Your task to perform on an android device: open wifi settings Image 0: 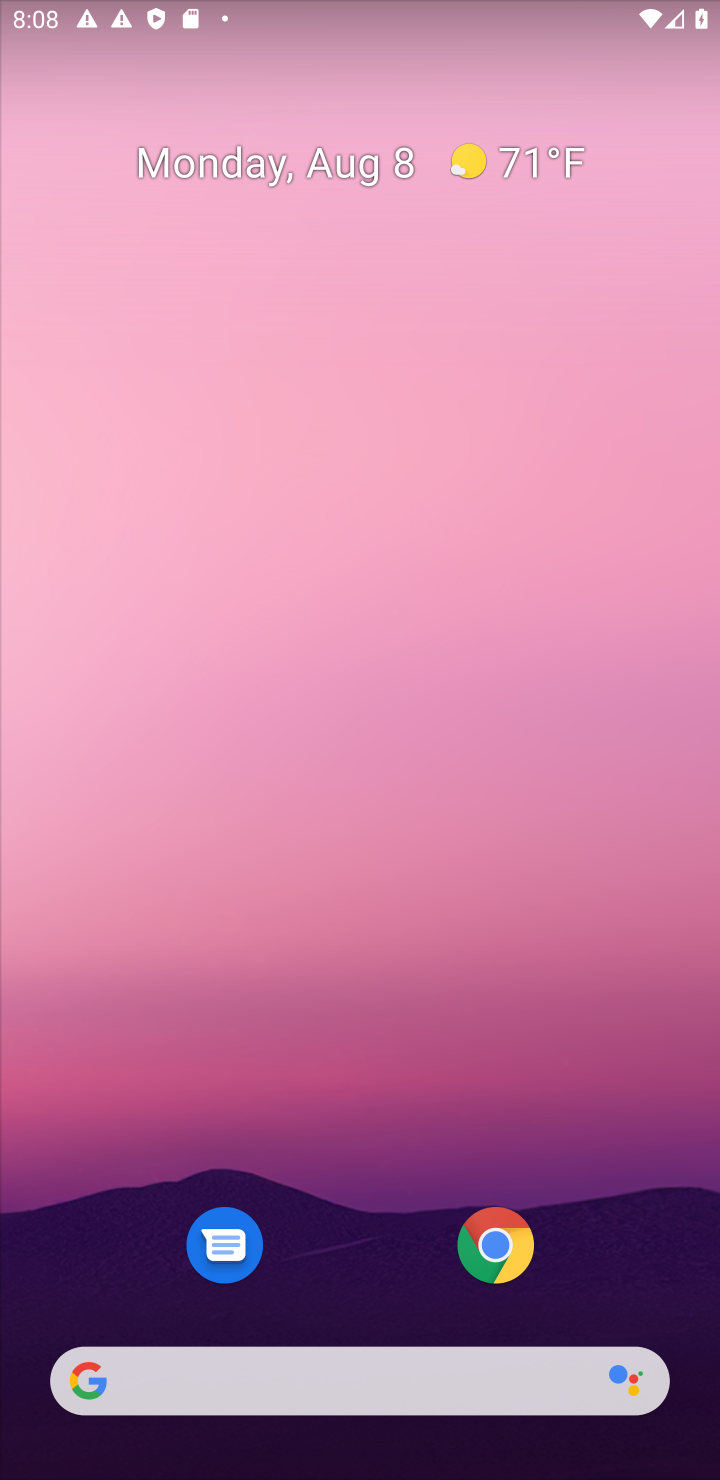
Step 0: drag from (327, 1235) to (405, 14)
Your task to perform on an android device: open wifi settings Image 1: 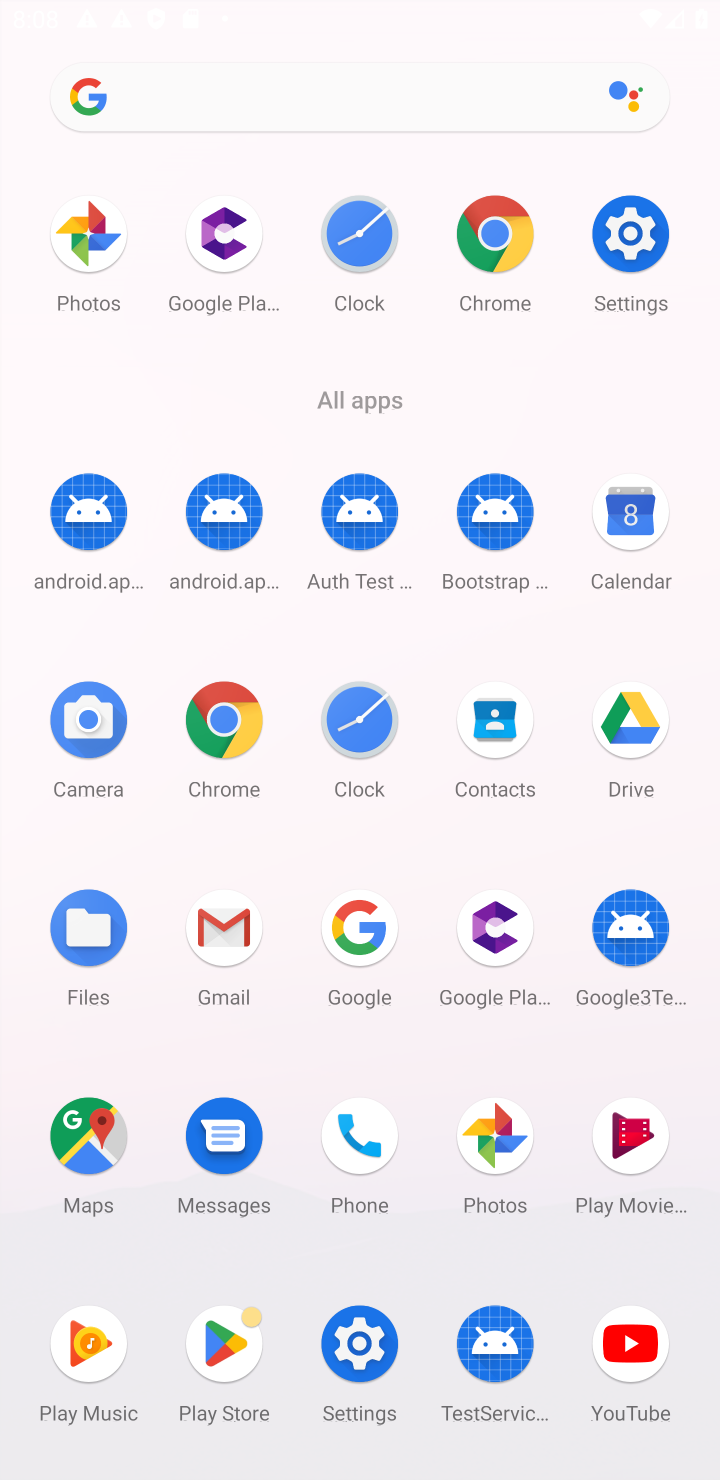
Step 1: click (639, 285)
Your task to perform on an android device: open wifi settings Image 2: 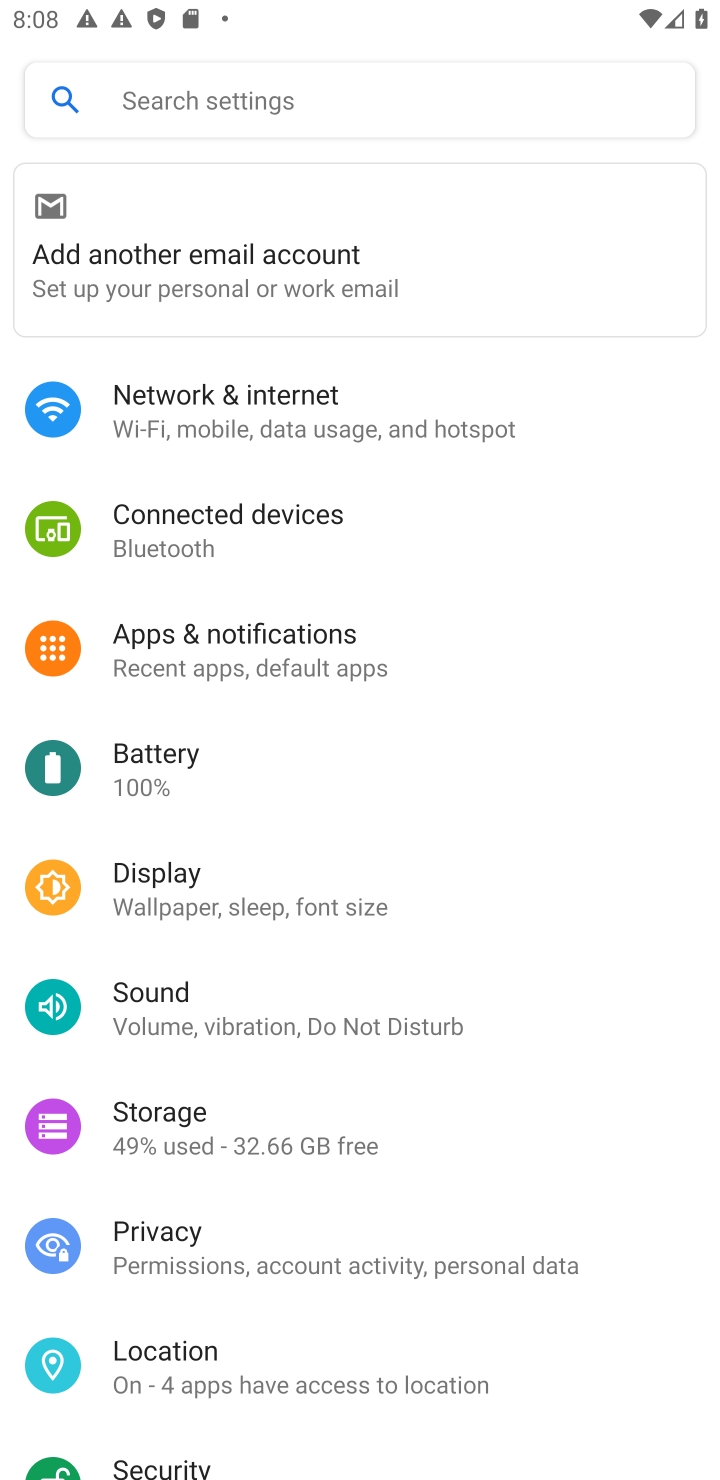
Step 2: click (248, 411)
Your task to perform on an android device: open wifi settings Image 3: 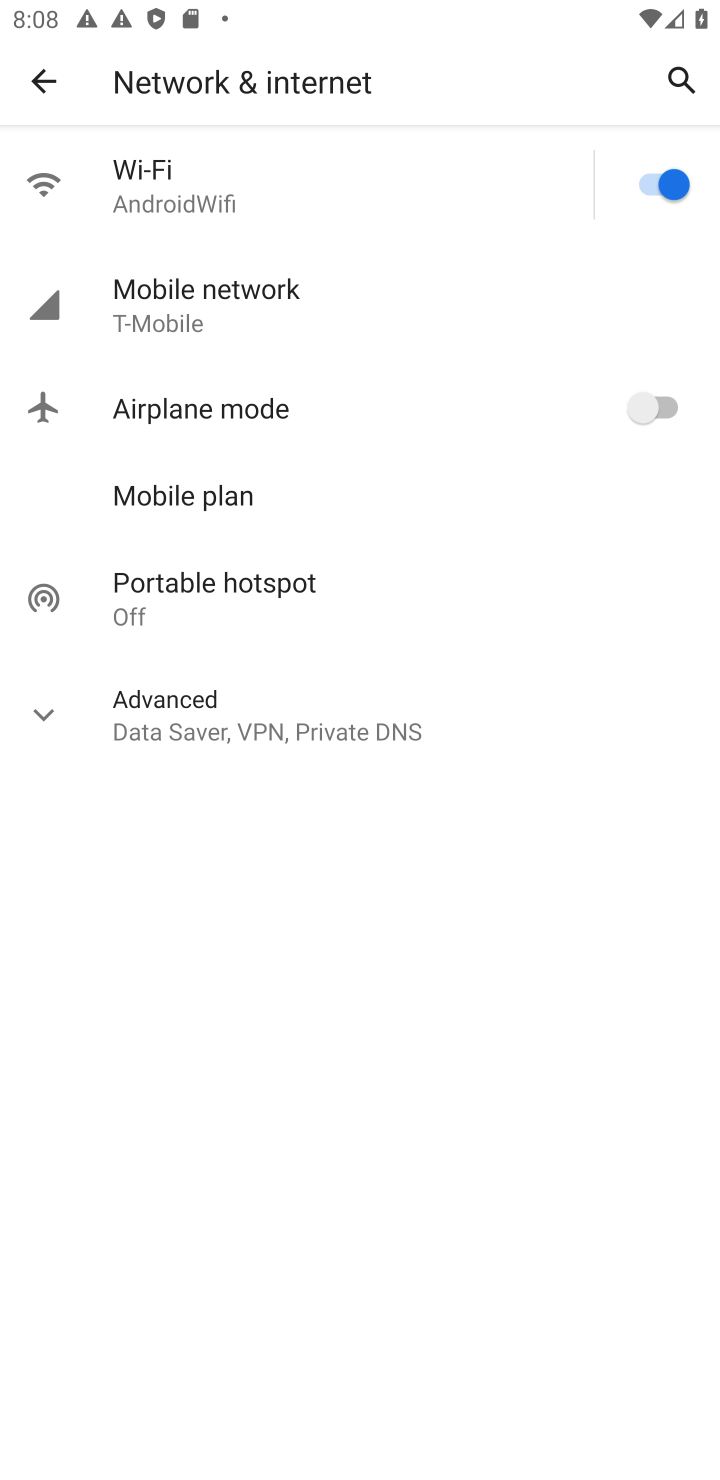
Step 3: click (122, 179)
Your task to perform on an android device: open wifi settings Image 4: 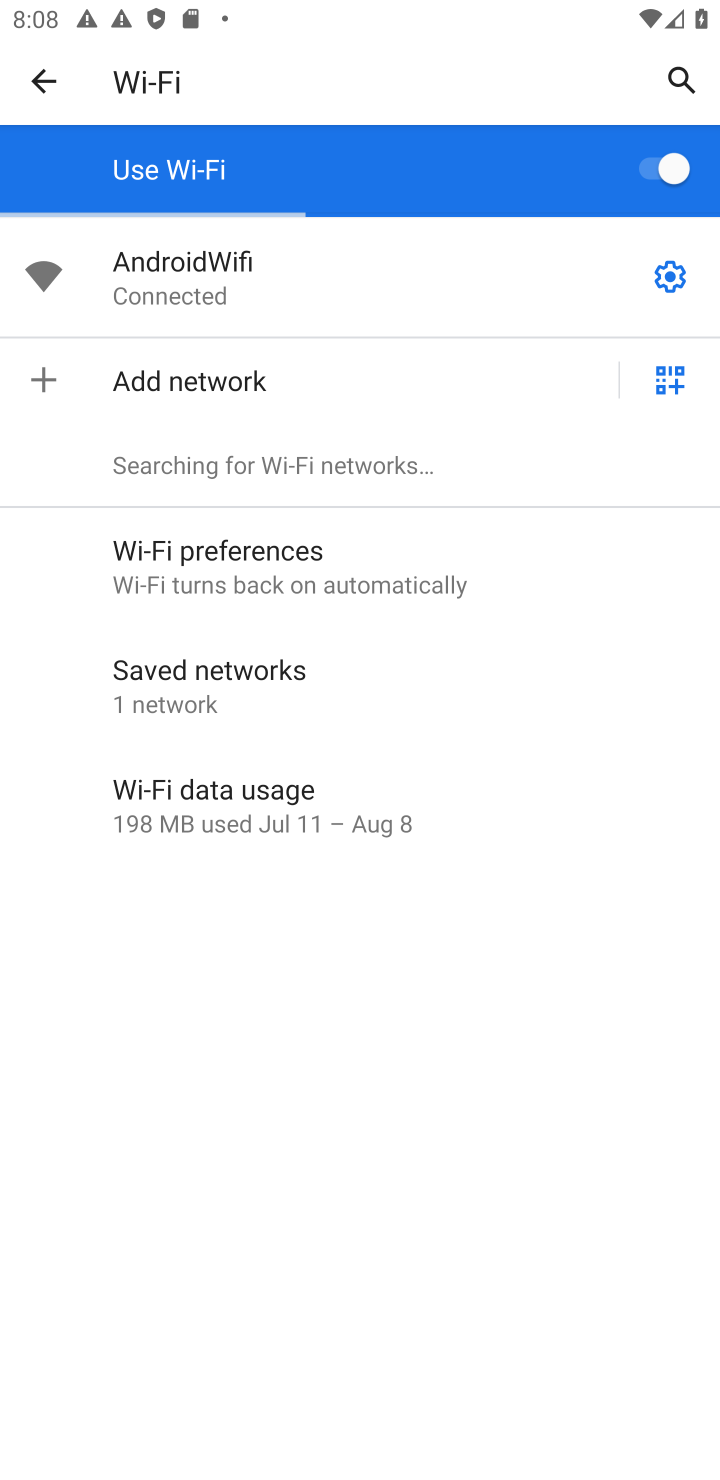
Step 4: task complete